Your task to perform on an android device: Go to battery settings Image 0: 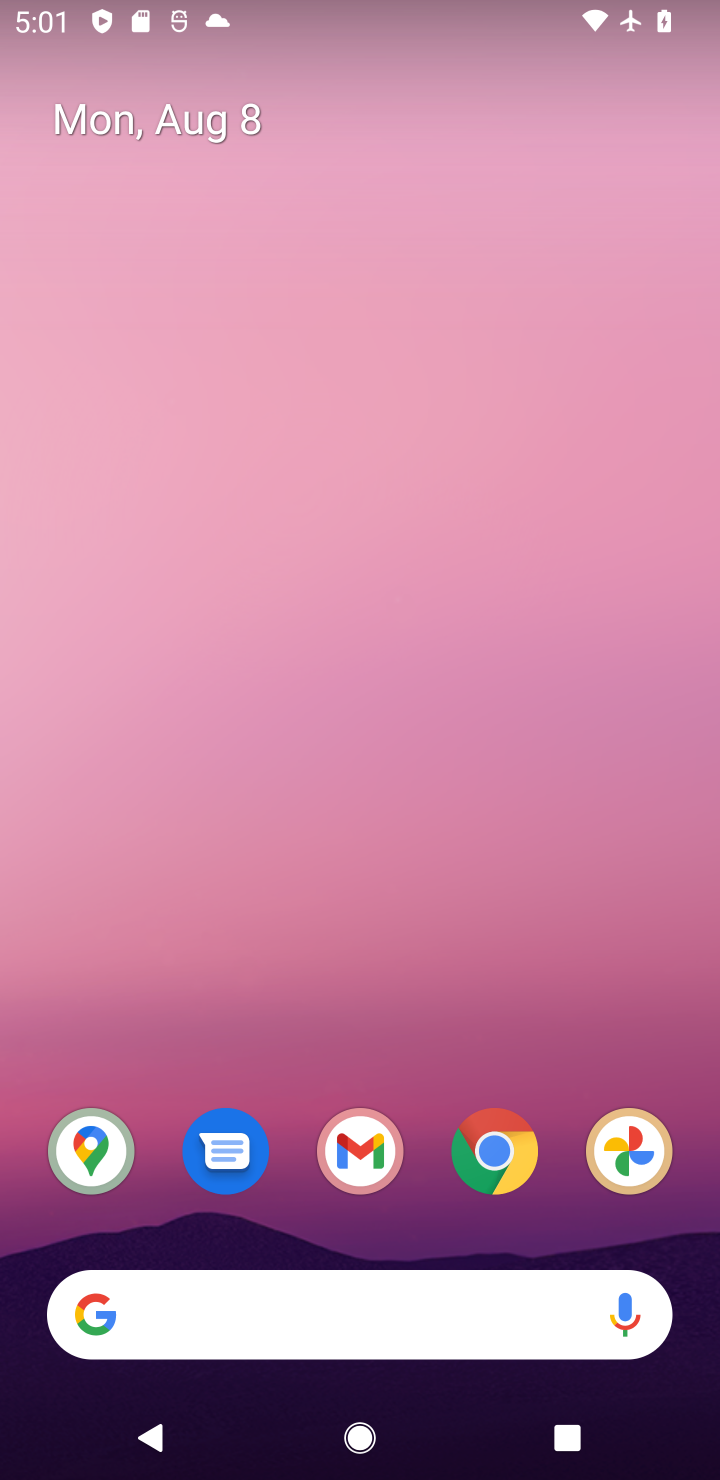
Step 0: drag from (403, 986) to (370, 116)
Your task to perform on an android device: Go to battery settings Image 1: 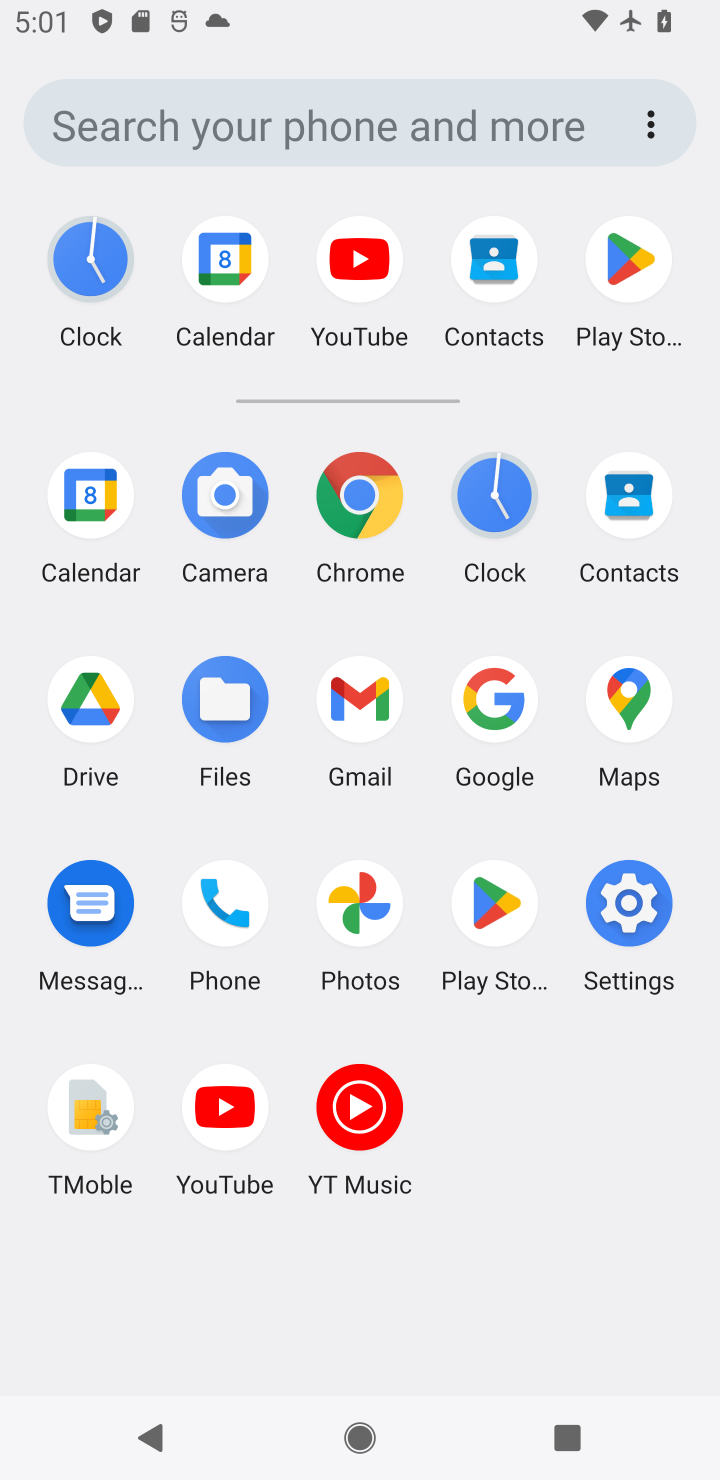
Step 1: click (617, 940)
Your task to perform on an android device: Go to battery settings Image 2: 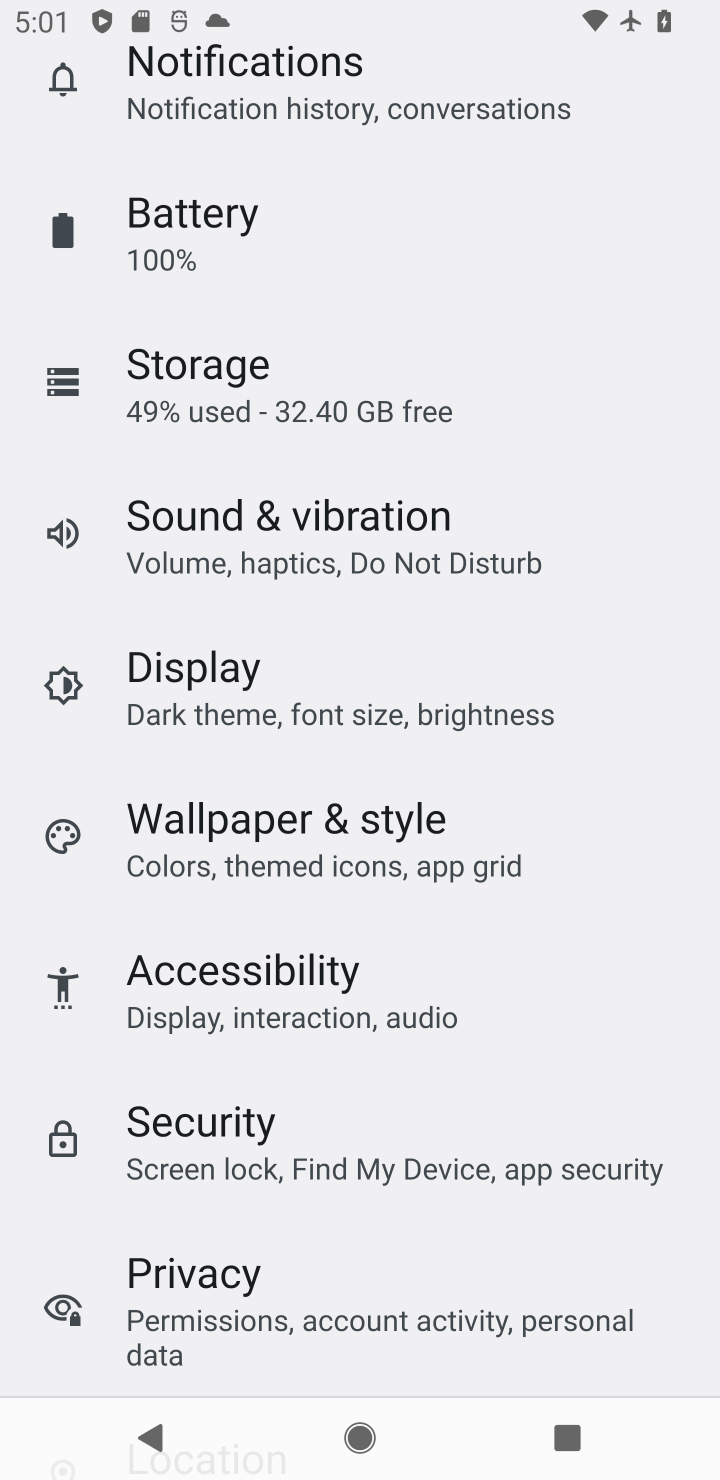
Step 2: click (277, 264)
Your task to perform on an android device: Go to battery settings Image 3: 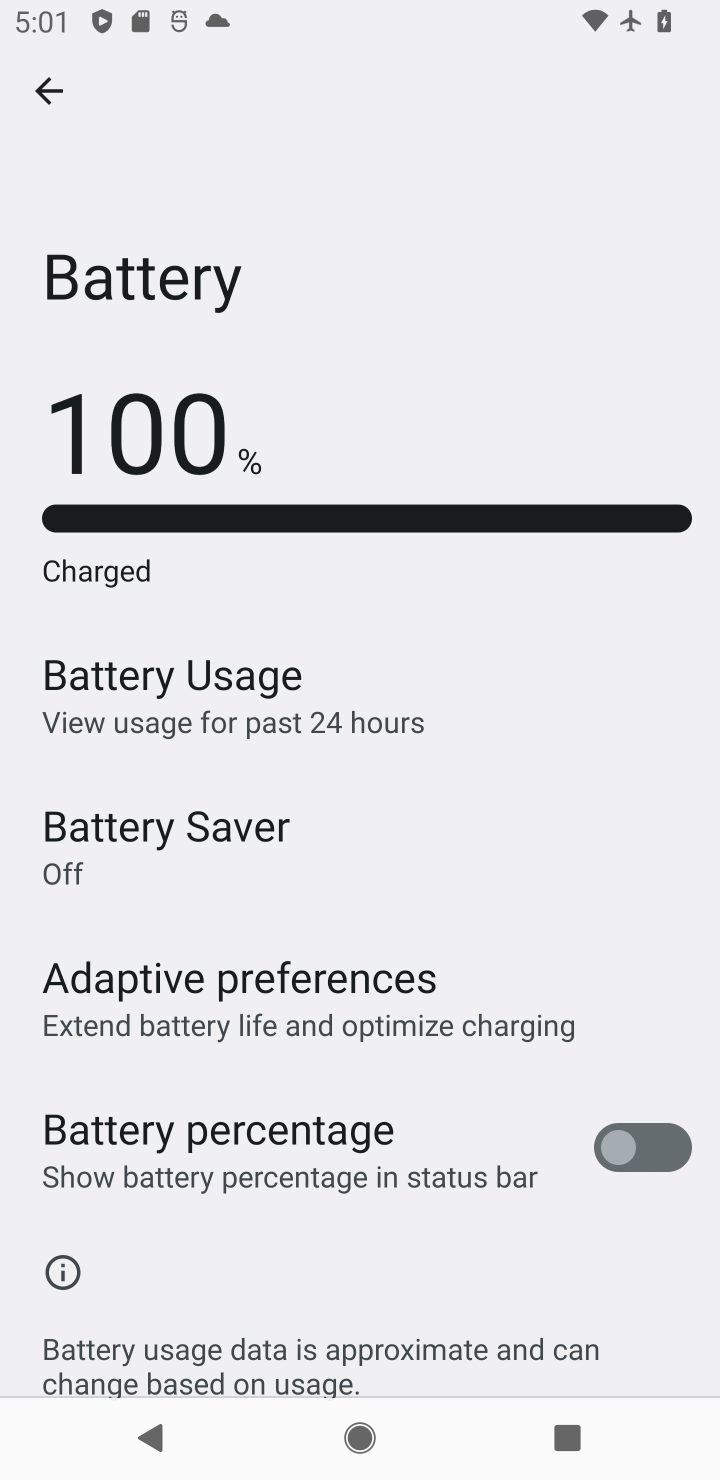
Step 3: task complete